Your task to perform on an android device: Clear all items from cart on ebay.com. Add alienware area 51 to the cart on ebay.com, then select checkout. Image 0: 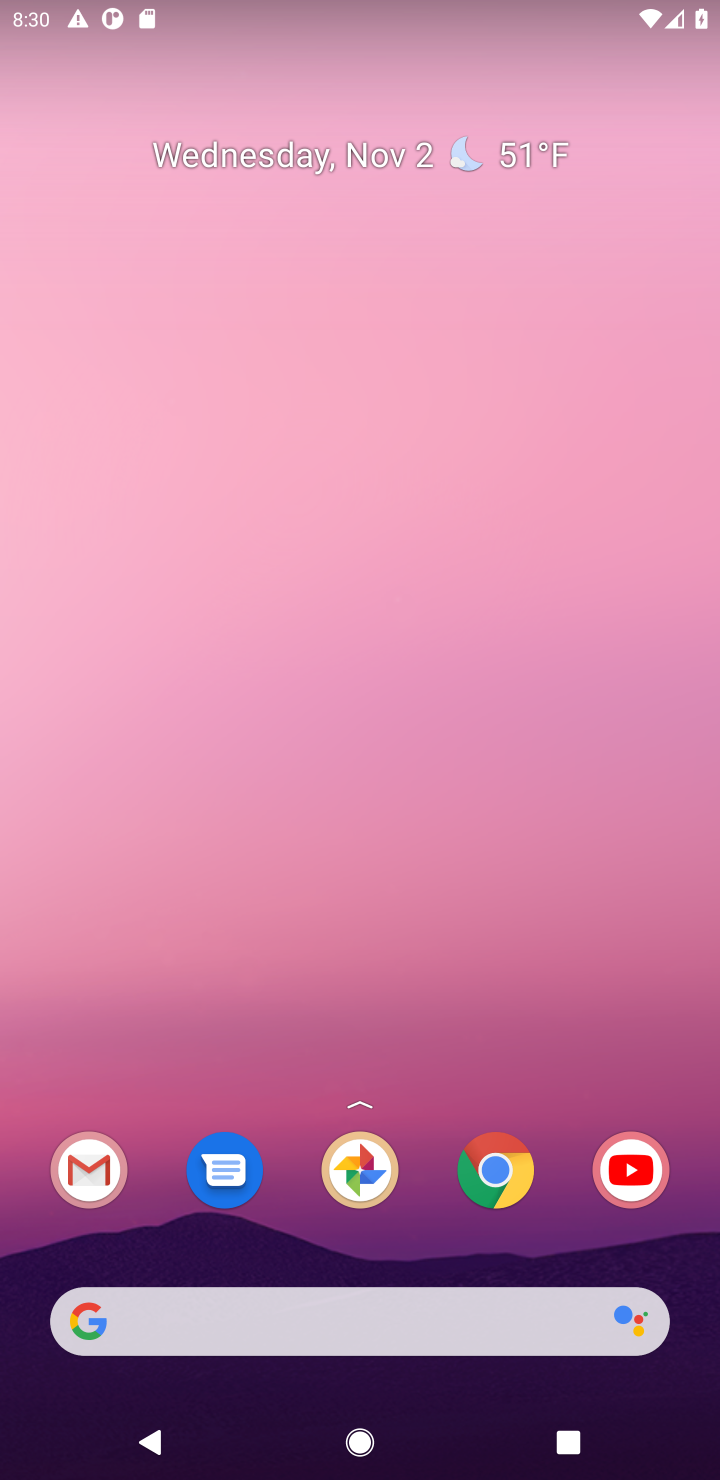
Step 0: click (524, 1167)
Your task to perform on an android device: Clear all items from cart on ebay.com. Add alienware area 51 to the cart on ebay.com, then select checkout. Image 1: 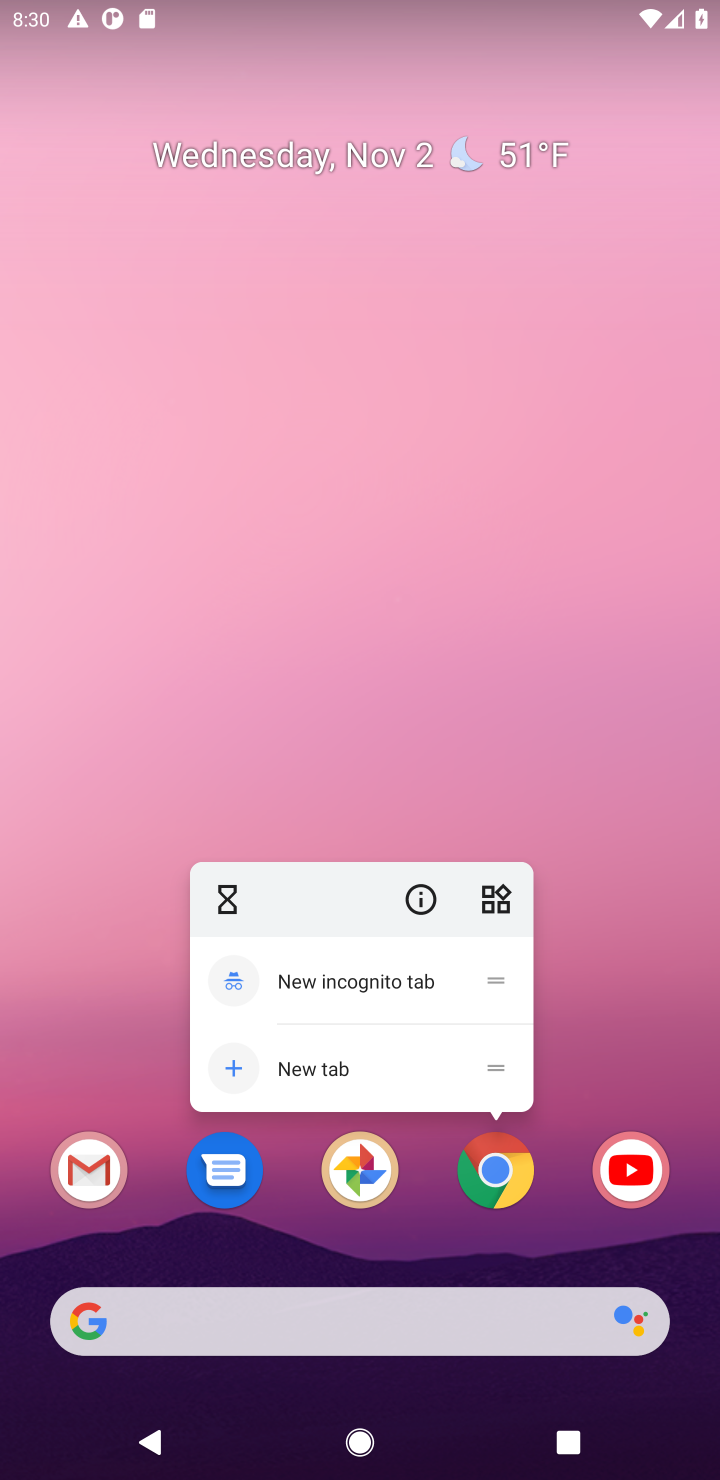
Step 1: click (509, 1185)
Your task to perform on an android device: Clear all items from cart on ebay.com. Add alienware area 51 to the cart on ebay.com, then select checkout. Image 2: 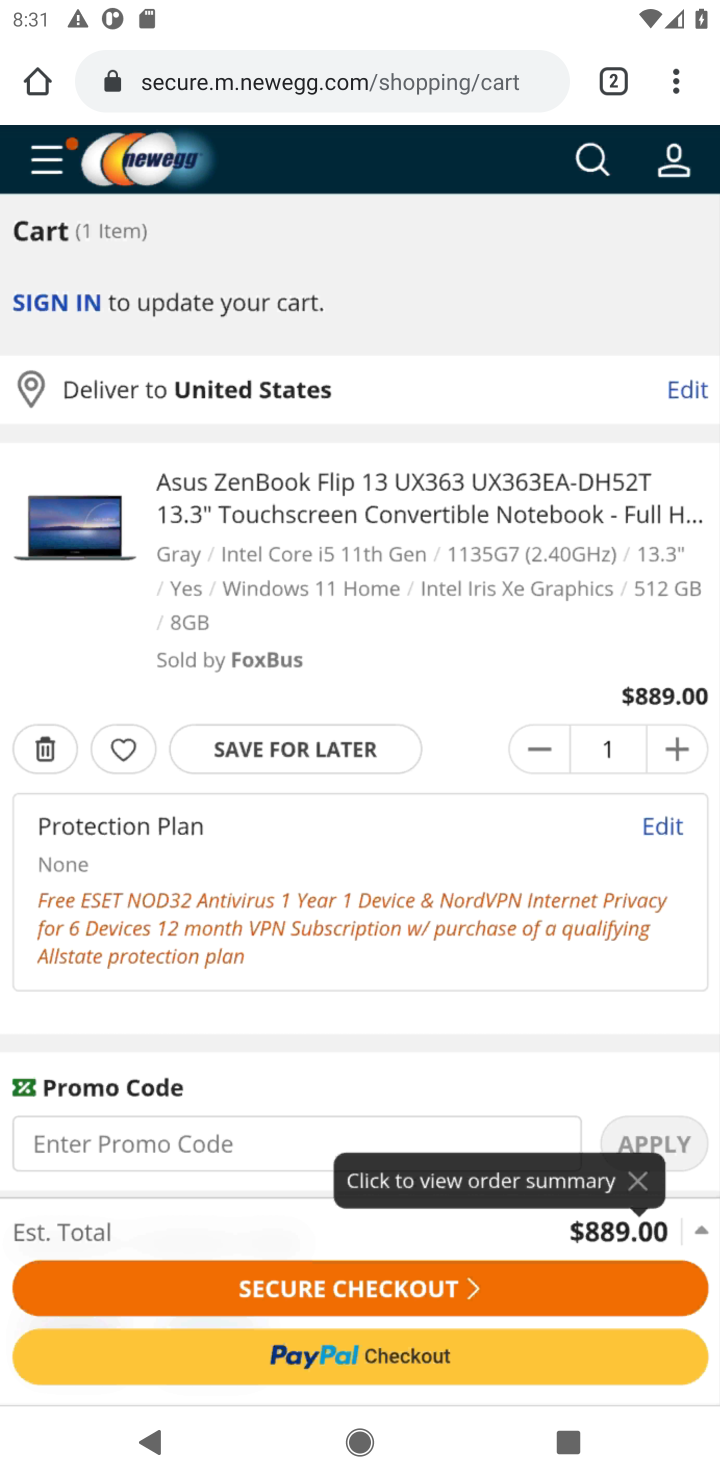
Step 2: click (357, 89)
Your task to perform on an android device: Clear all items from cart on ebay.com. Add alienware area 51 to the cart on ebay.com, then select checkout. Image 3: 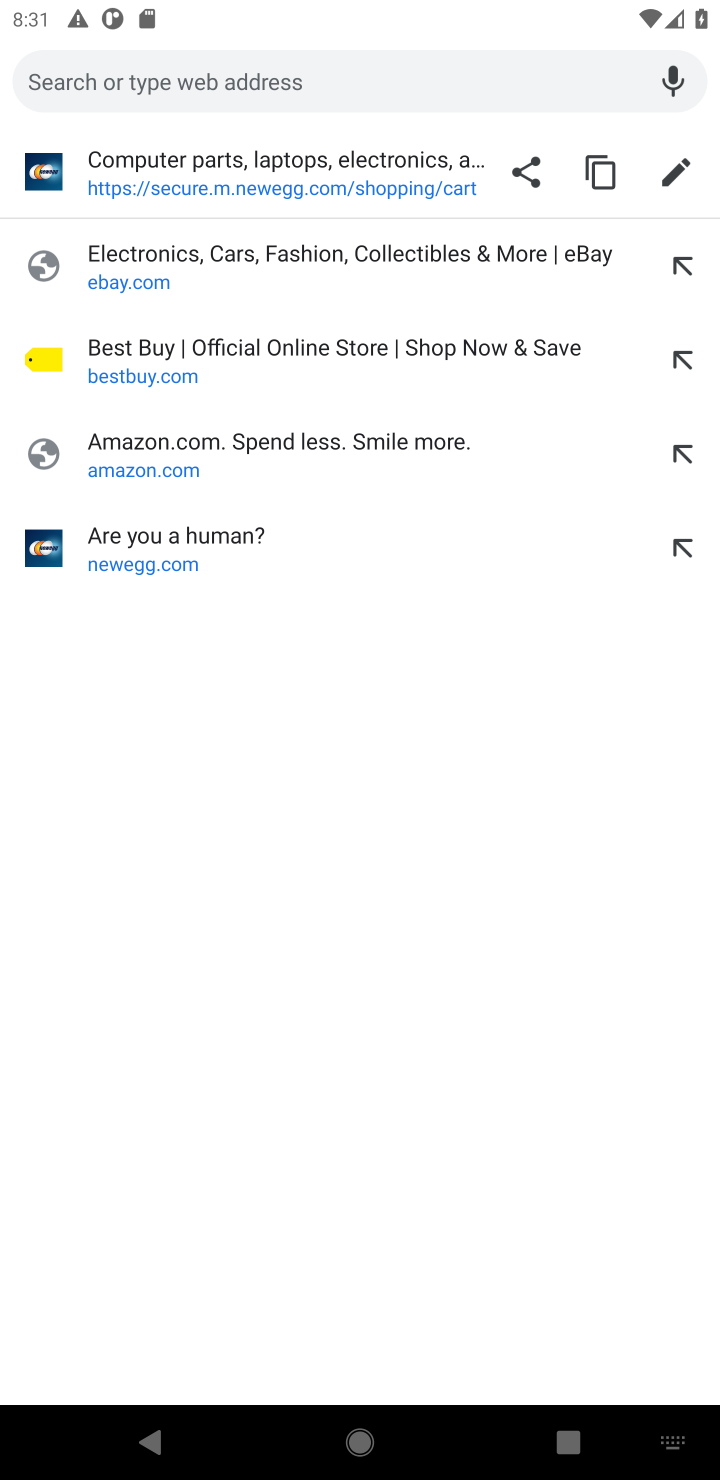
Step 3: type "ebay.com"
Your task to perform on an android device: Clear all items from cart on ebay.com. Add alienware area 51 to the cart on ebay.com, then select checkout. Image 4: 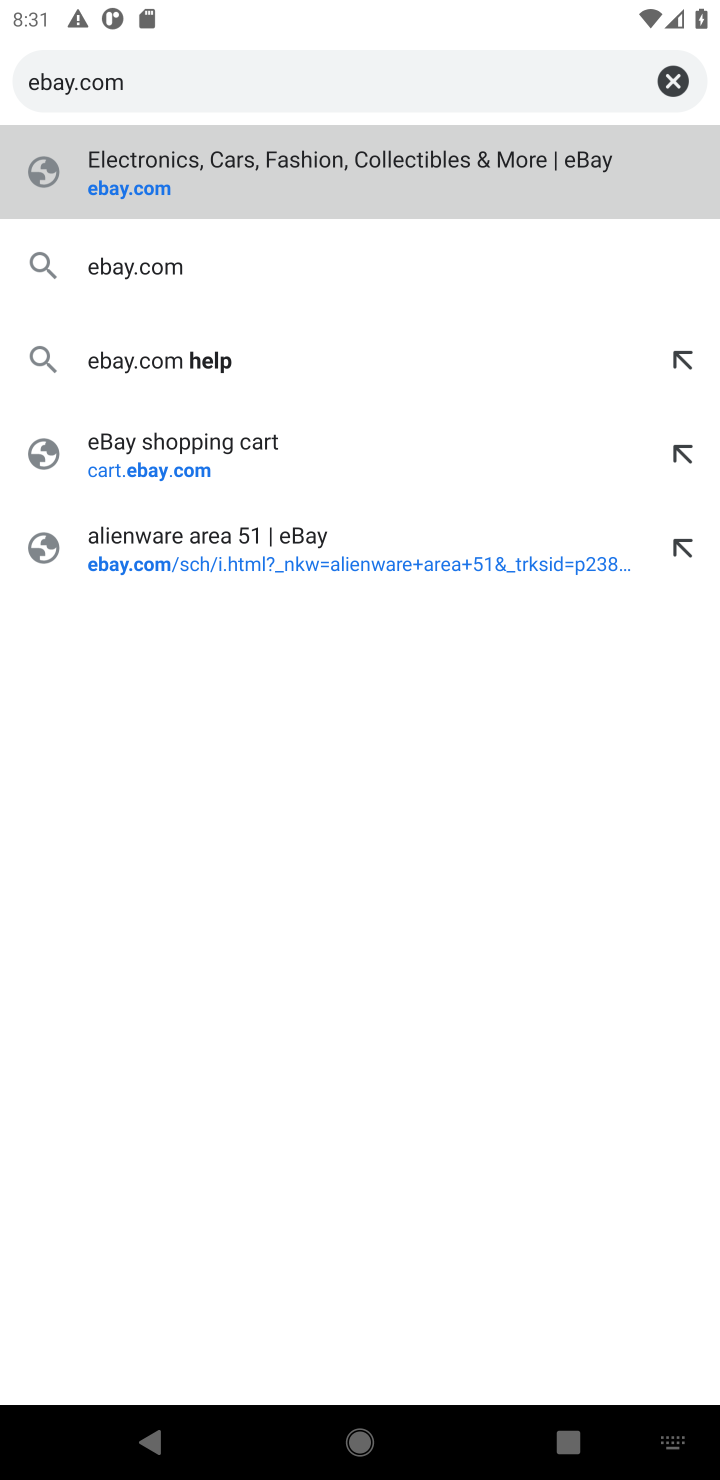
Step 4: type ""
Your task to perform on an android device: Clear all items from cart on ebay.com. Add alienware area 51 to the cart on ebay.com, then select checkout. Image 5: 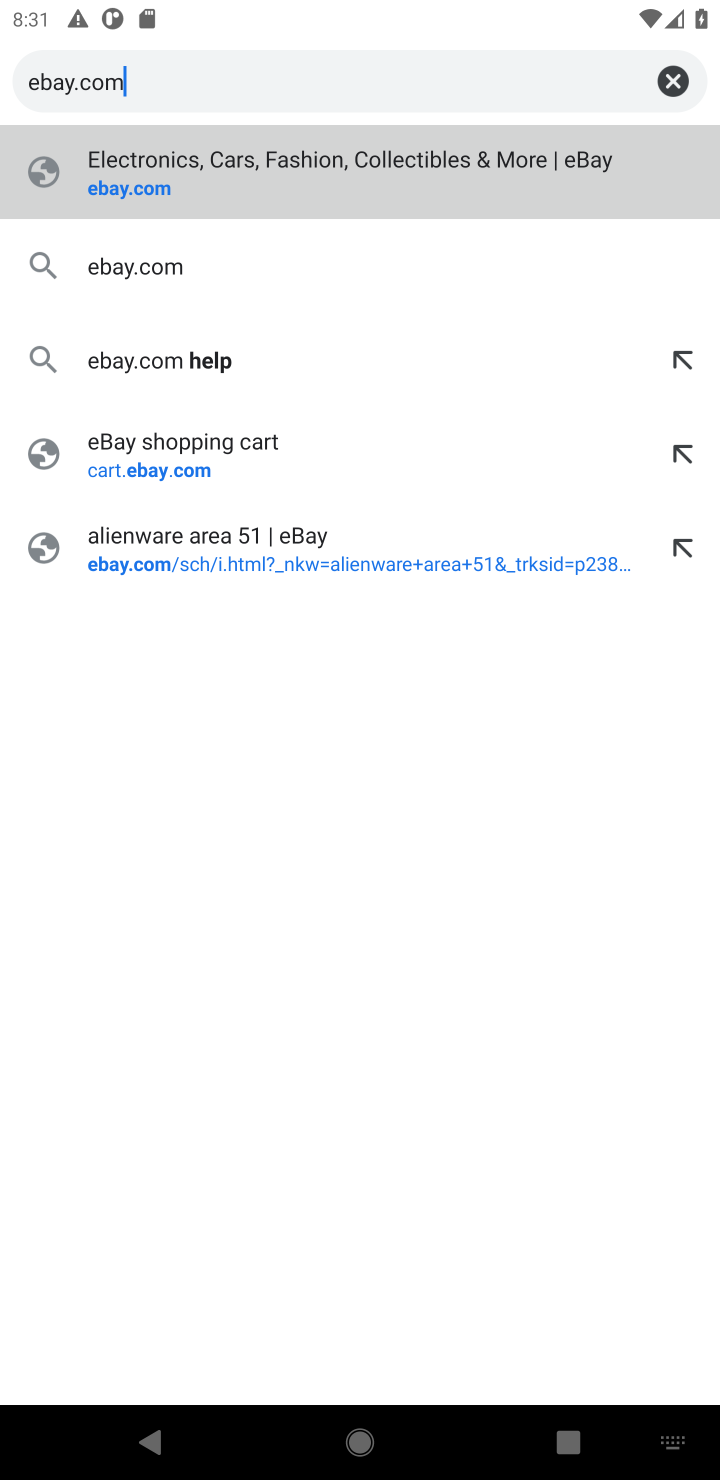
Step 5: press enter
Your task to perform on an android device: Clear all items from cart on ebay.com. Add alienware area 51 to the cart on ebay.com, then select checkout. Image 6: 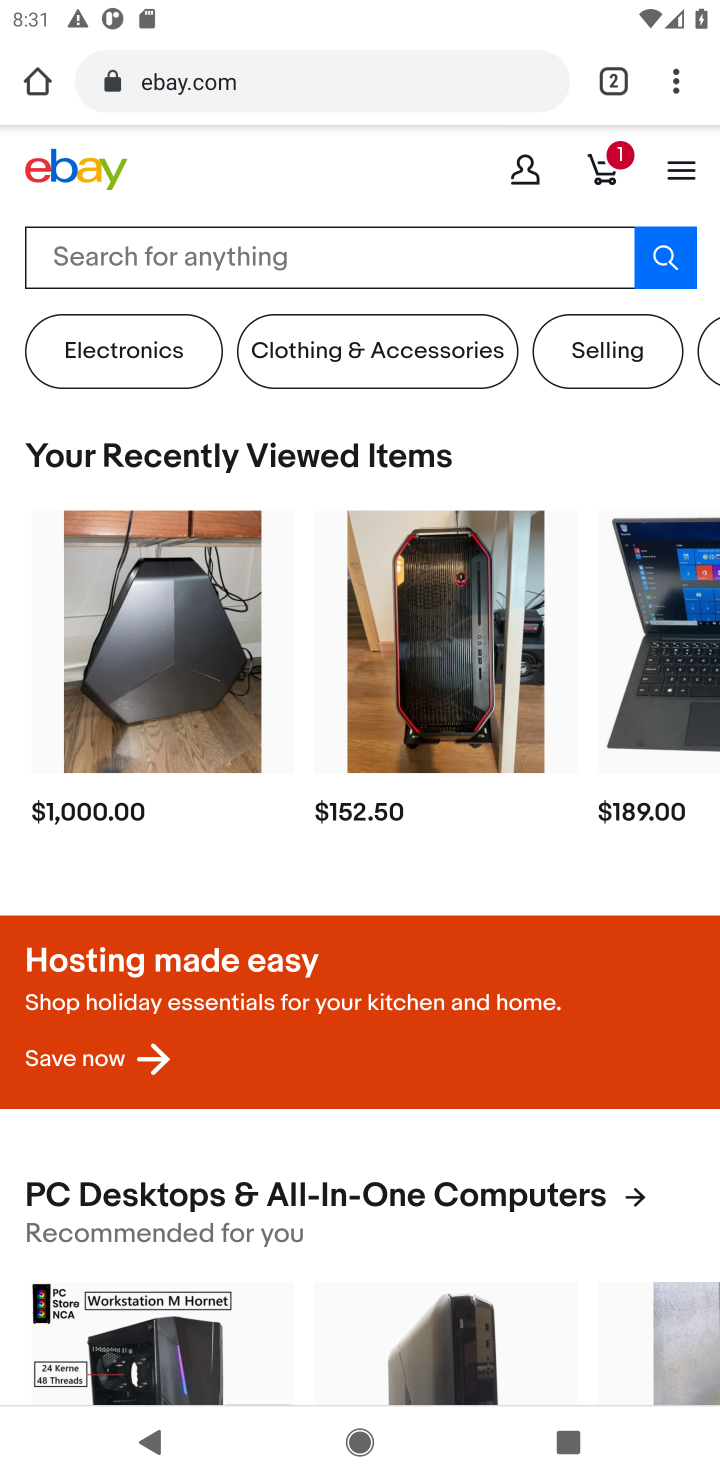
Step 6: click (605, 172)
Your task to perform on an android device: Clear all items from cart on ebay.com. Add alienware area 51 to the cart on ebay.com, then select checkout. Image 7: 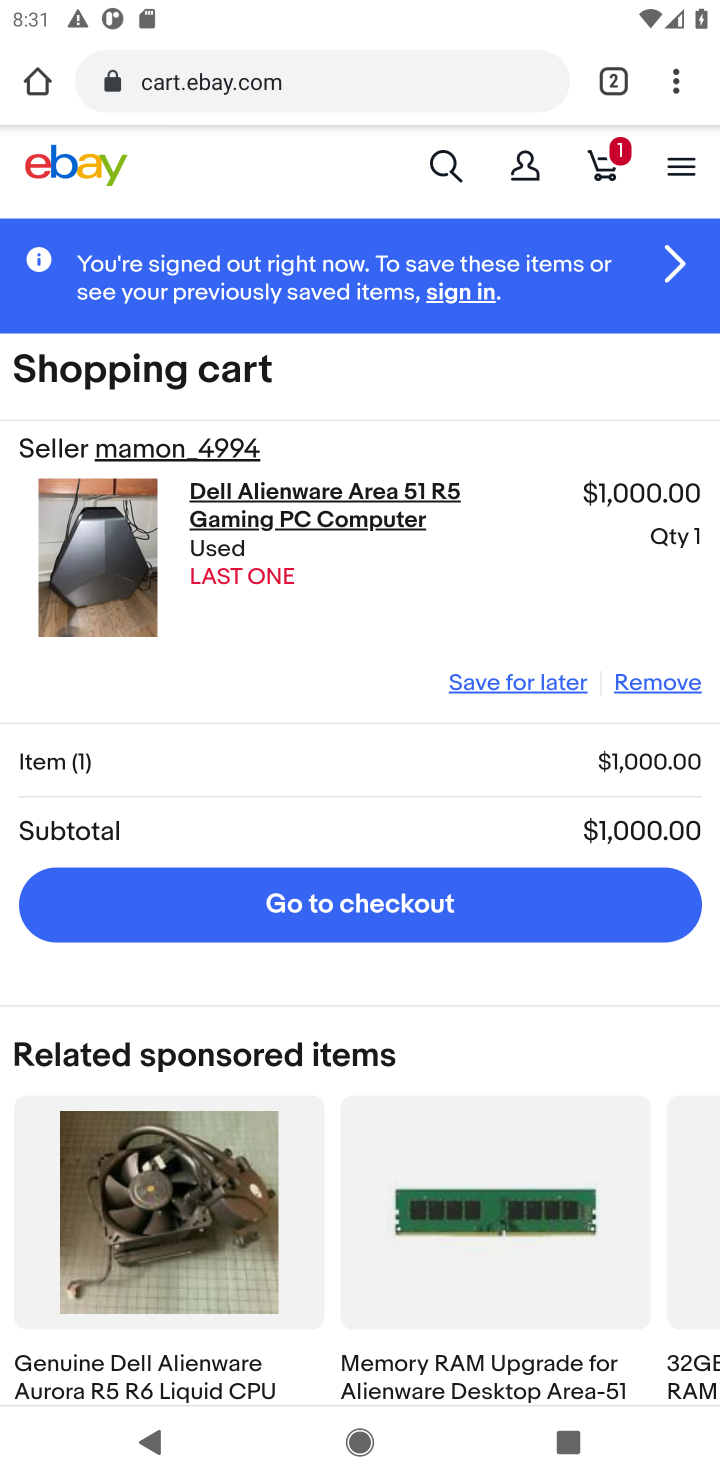
Step 7: click (640, 676)
Your task to perform on an android device: Clear all items from cart on ebay.com. Add alienware area 51 to the cart on ebay.com, then select checkout. Image 8: 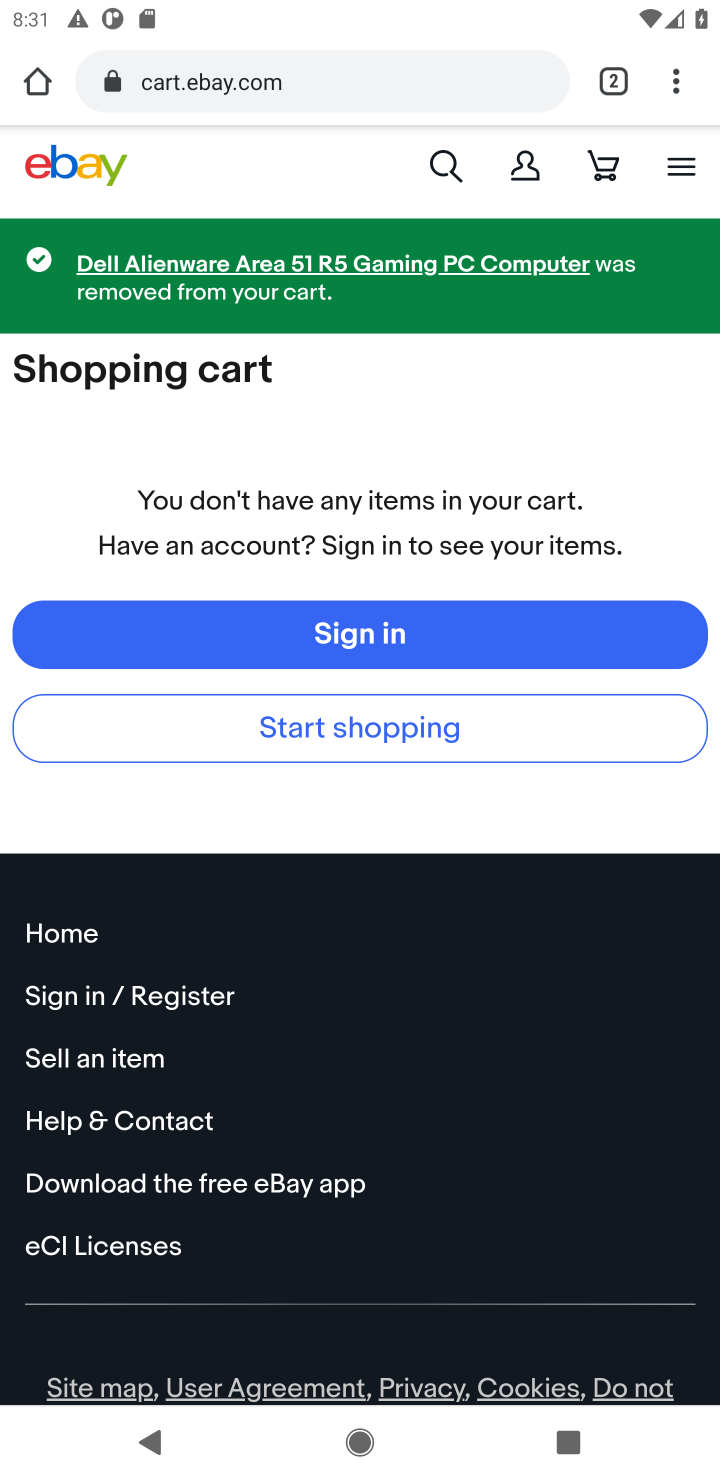
Step 8: click (519, 749)
Your task to perform on an android device: Clear all items from cart on ebay.com. Add alienware area 51 to the cart on ebay.com, then select checkout. Image 9: 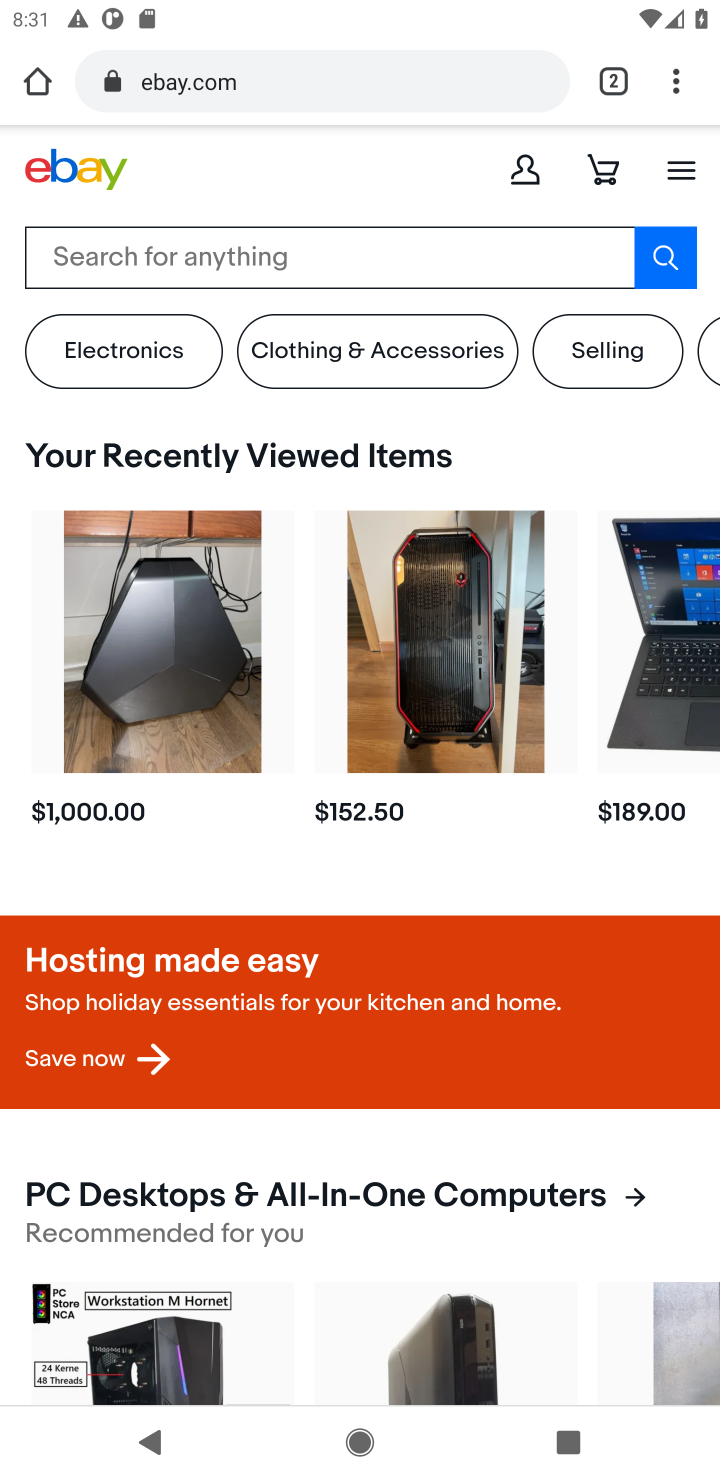
Step 9: click (325, 270)
Your task to perform on an android device: Clear all items from cart on ebay.com. Add alienware area 51 to the cart on ebay.com, then select checkout. Image 10: 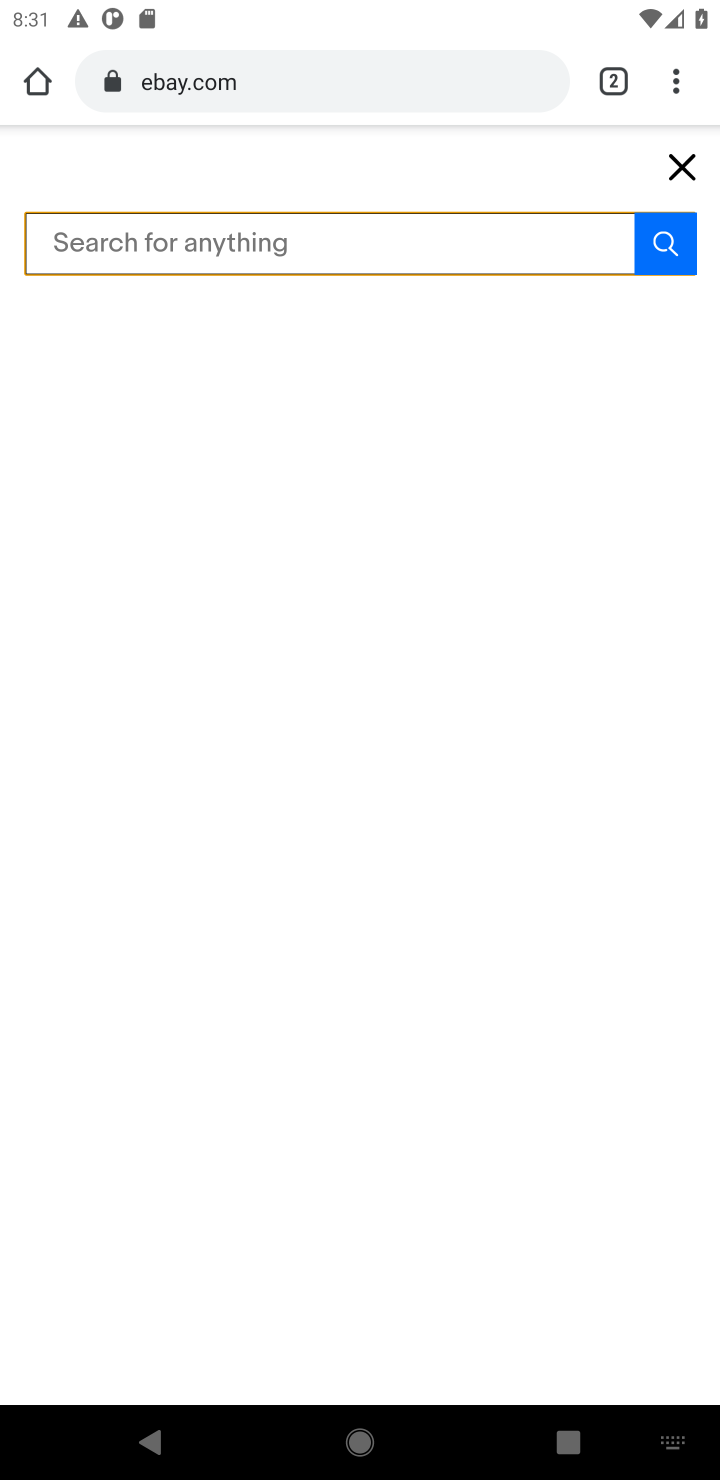
Step 10: type "alienware area 51"
Your task to perform on an android device: Clear all items from cart on ebay.com. Add alienware area 51 to the cart on ebay.com, then select checkout. Image 11: 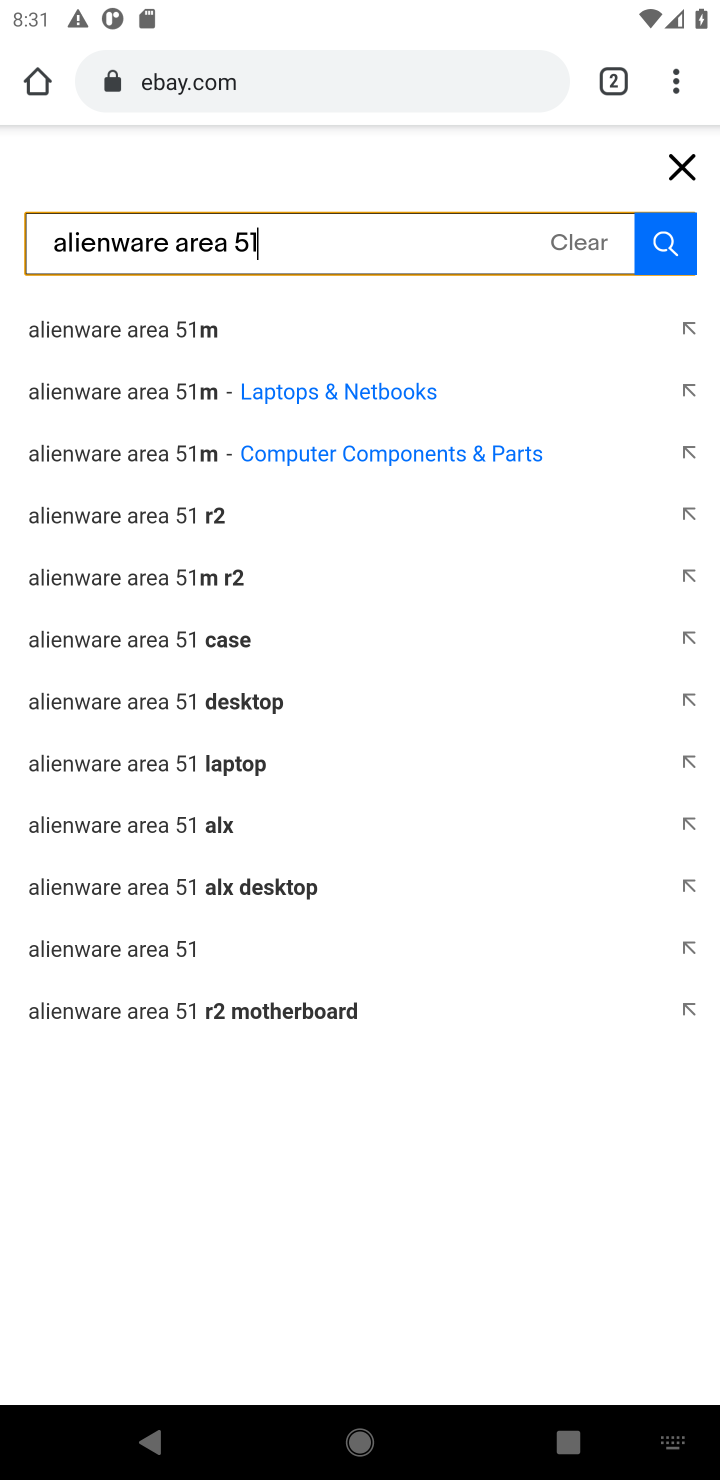
Step 11: type ""
Your task to perform on an android device: Clear all items from cart on ebay.com. Add alienware area 51 to the cart on ebay.com, then select checkout. Image 12: 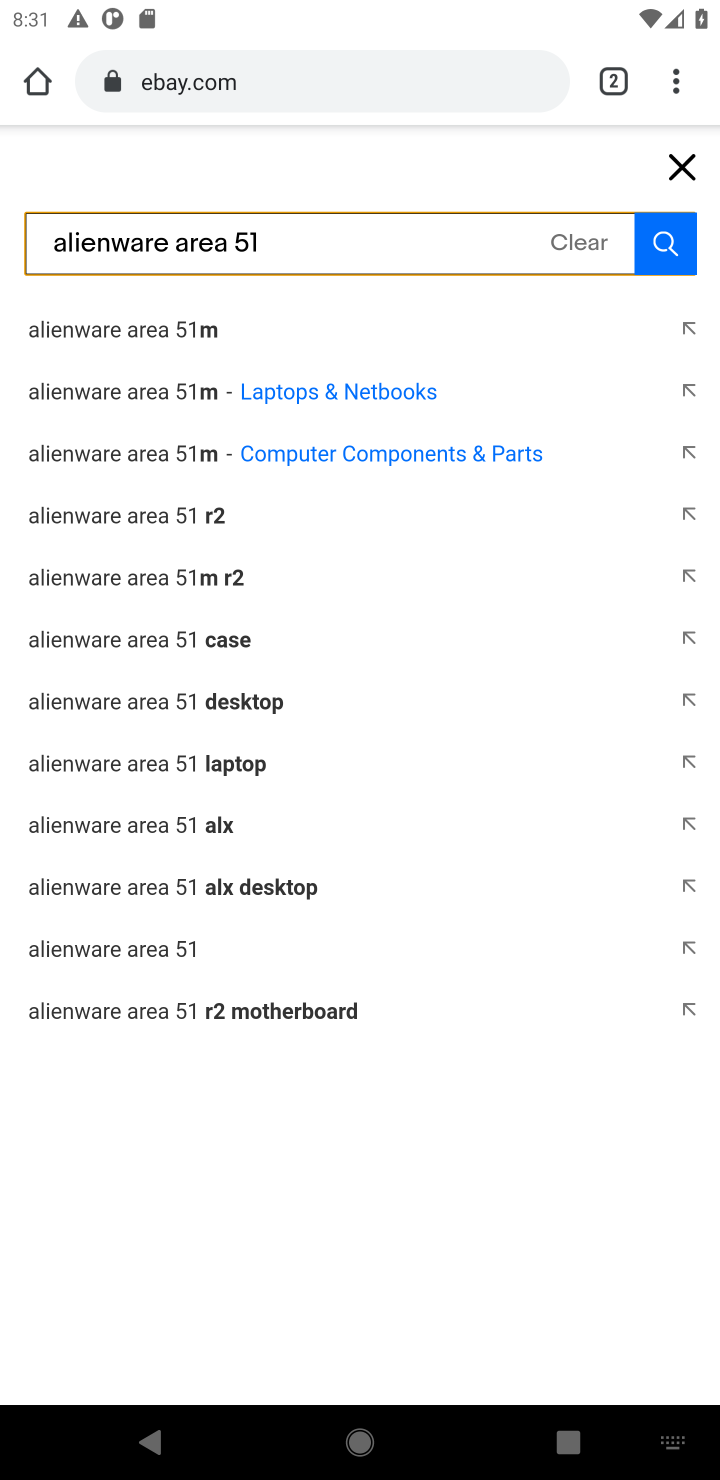
Step 12: click (644, 256)
Your task to perform on an android device: Clear all items from cart on ebay.com. Add alienware area 51 to the cart on ebay.com, then select checkout. Image 13: 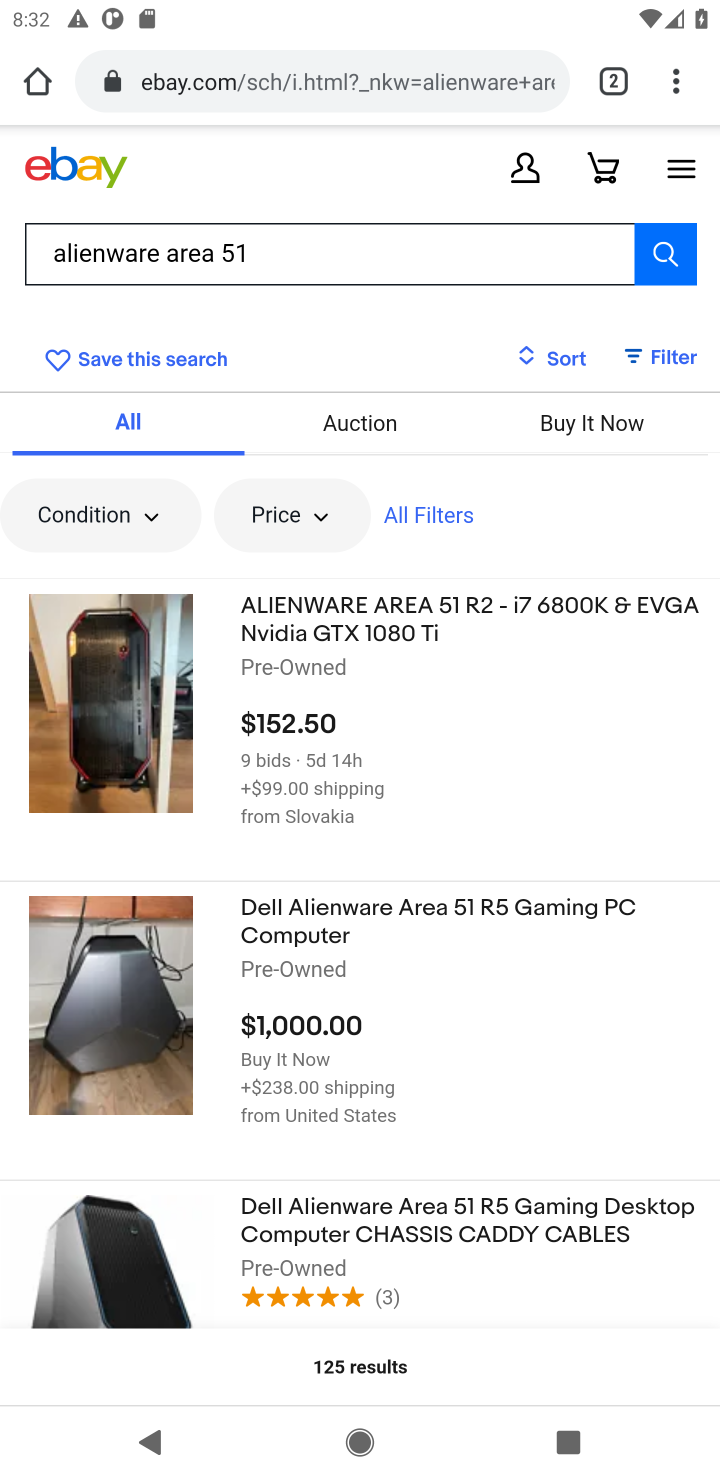
Step 13: click (346, 616)
Your task to perform on an android device: Clear all items from cart on ebay.com. Add alienware area 51 to the cart on ebay.com, then select checkout. Image 14: 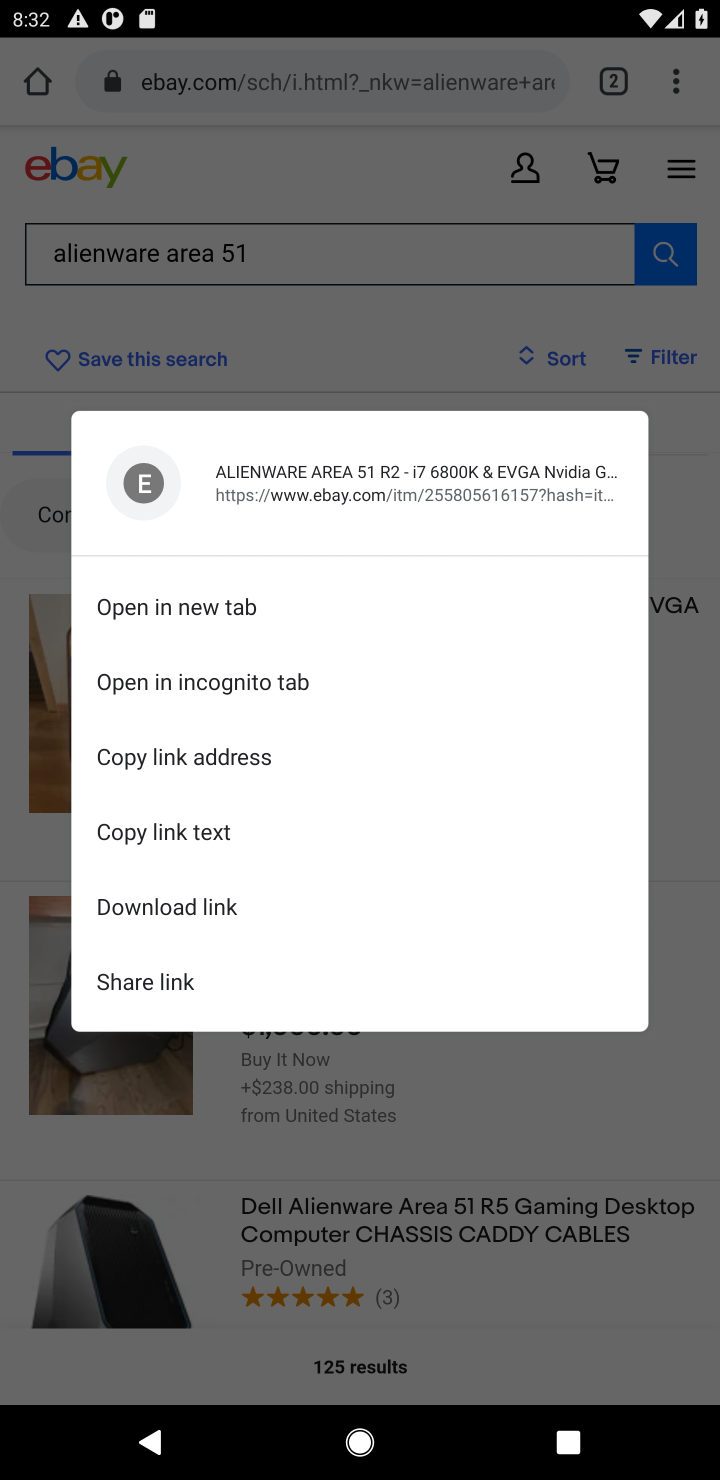
Step 14: click (441, 1079)
Your task to perform on an android device: Clear all items from cart on ebay.com. Add alienware area 51 to the cart on ebay.com, then select checkout. Image 15: 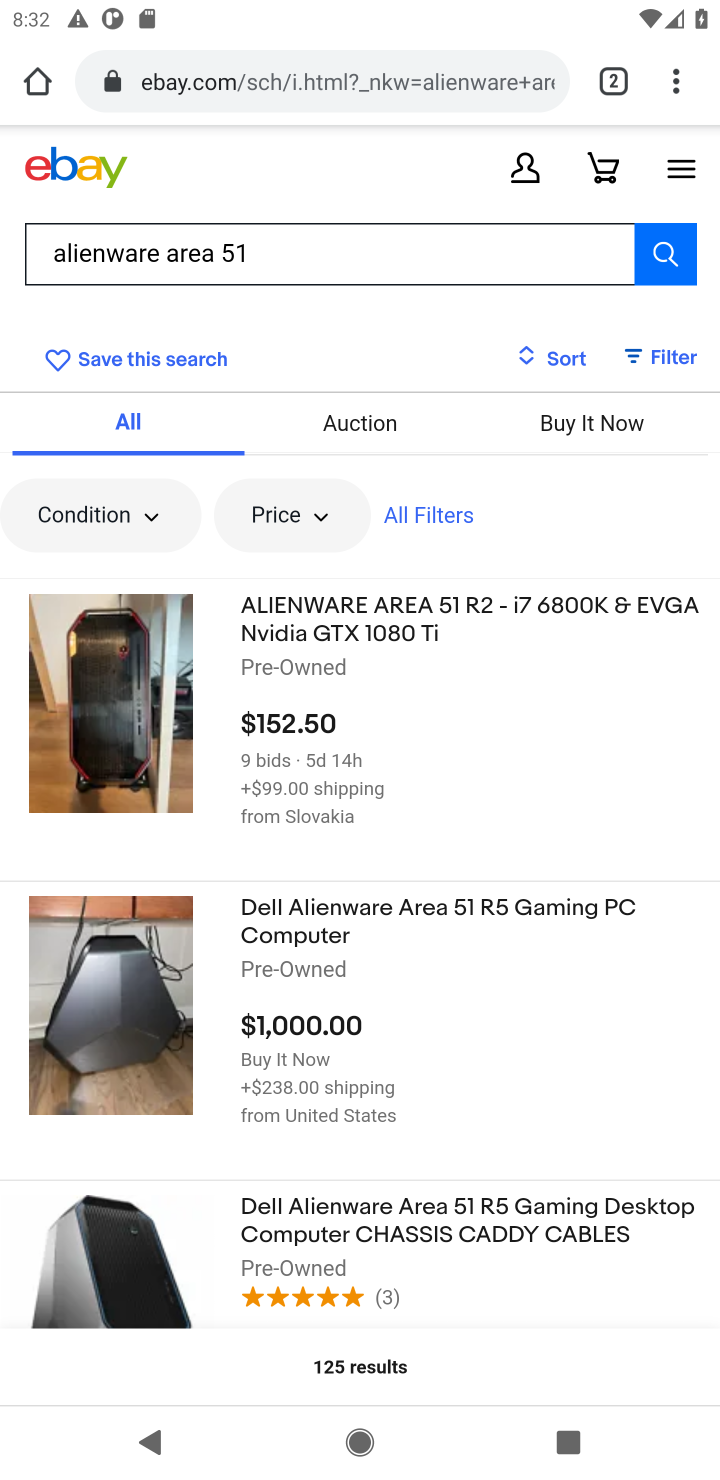
Step 15: click (346, 641)
Your task to perform on an android device: Clear all items from cart on ebay.com. Add alienware area 51 to the cart on ebay.com, then select checkout. Image 16: 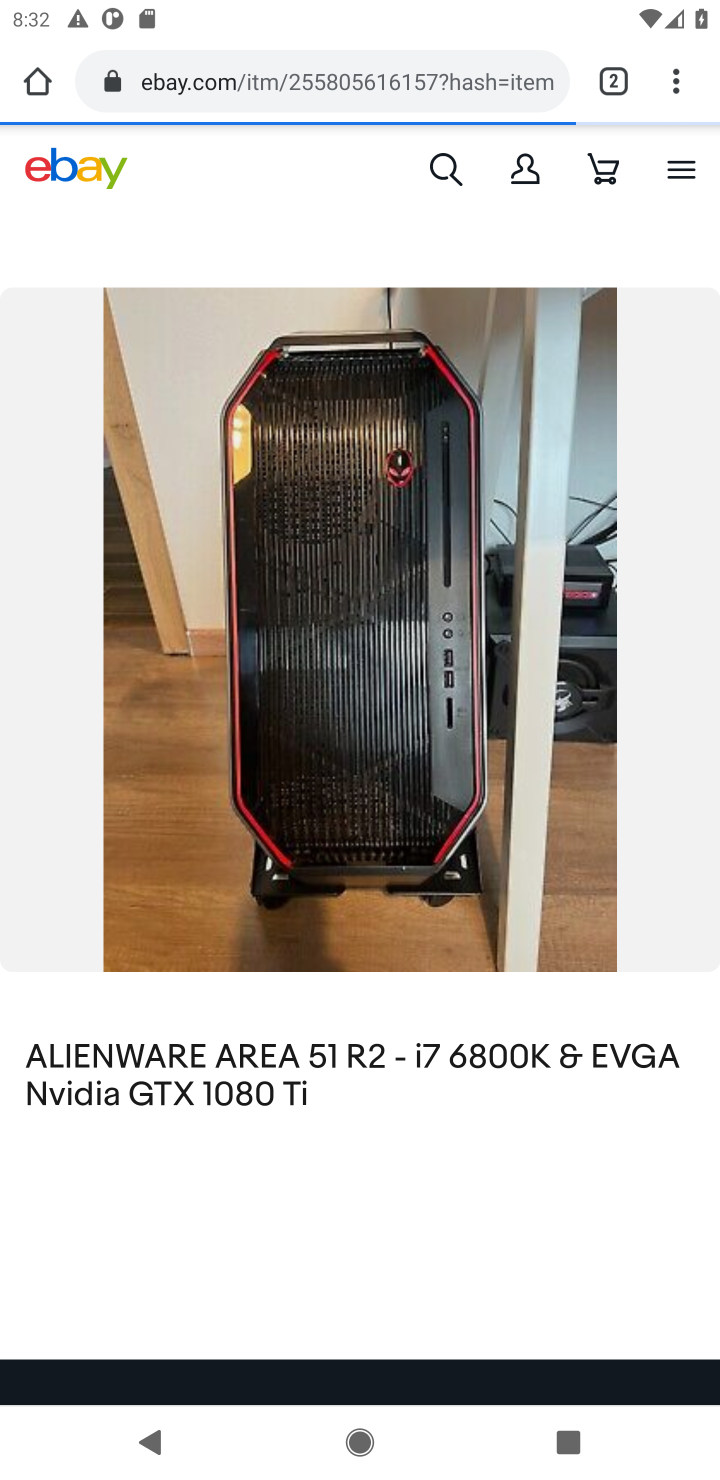
Step 16: drag from (474, 1083) to (461, 762)
Your task to perform on an android device: Clear all items from cart on ebay.com. Add alienware area 51 to the cart on ebay.com, then select checkout. Image 17: 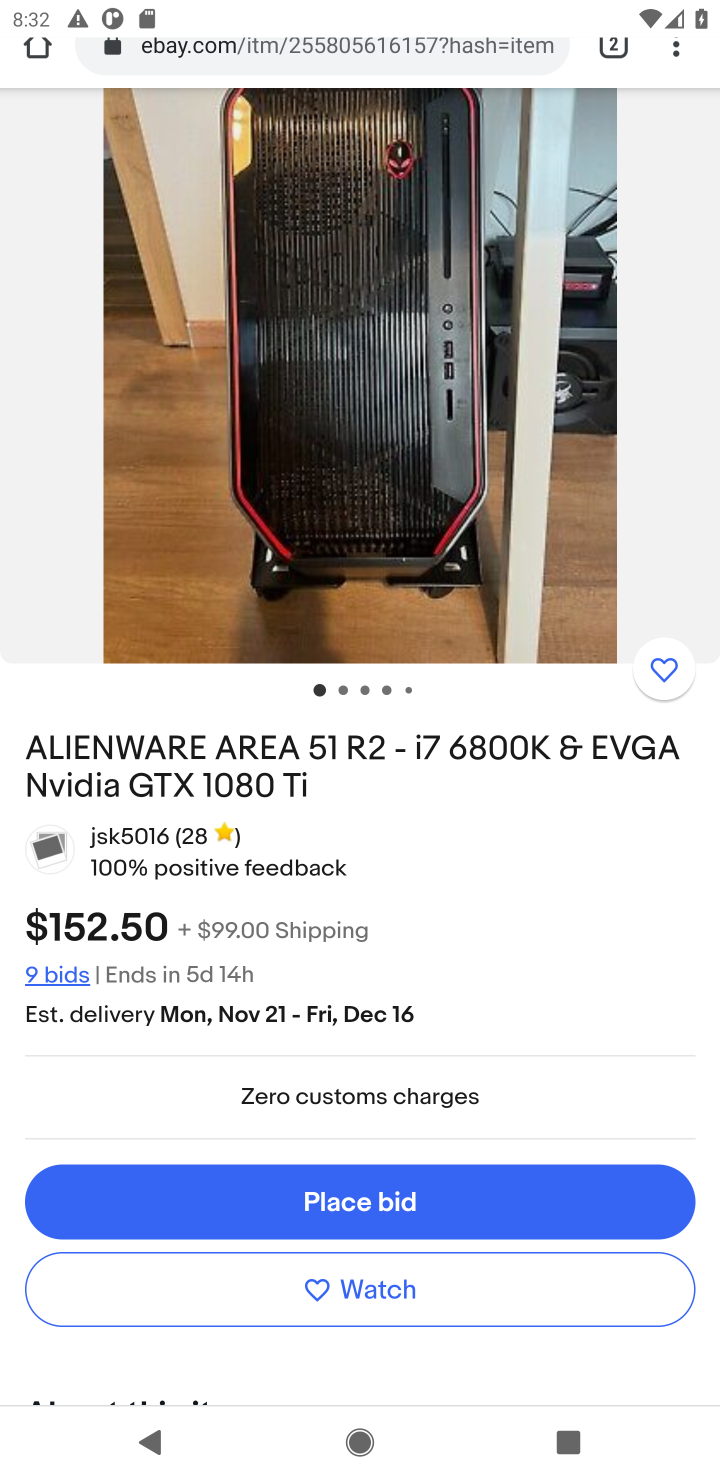
Step 17: press back button
Your task to perform on an android device: Clear all items from cart on ebay.com. Add alienware area 51 to the cart on ebay.com, then select checkout. Image 18: 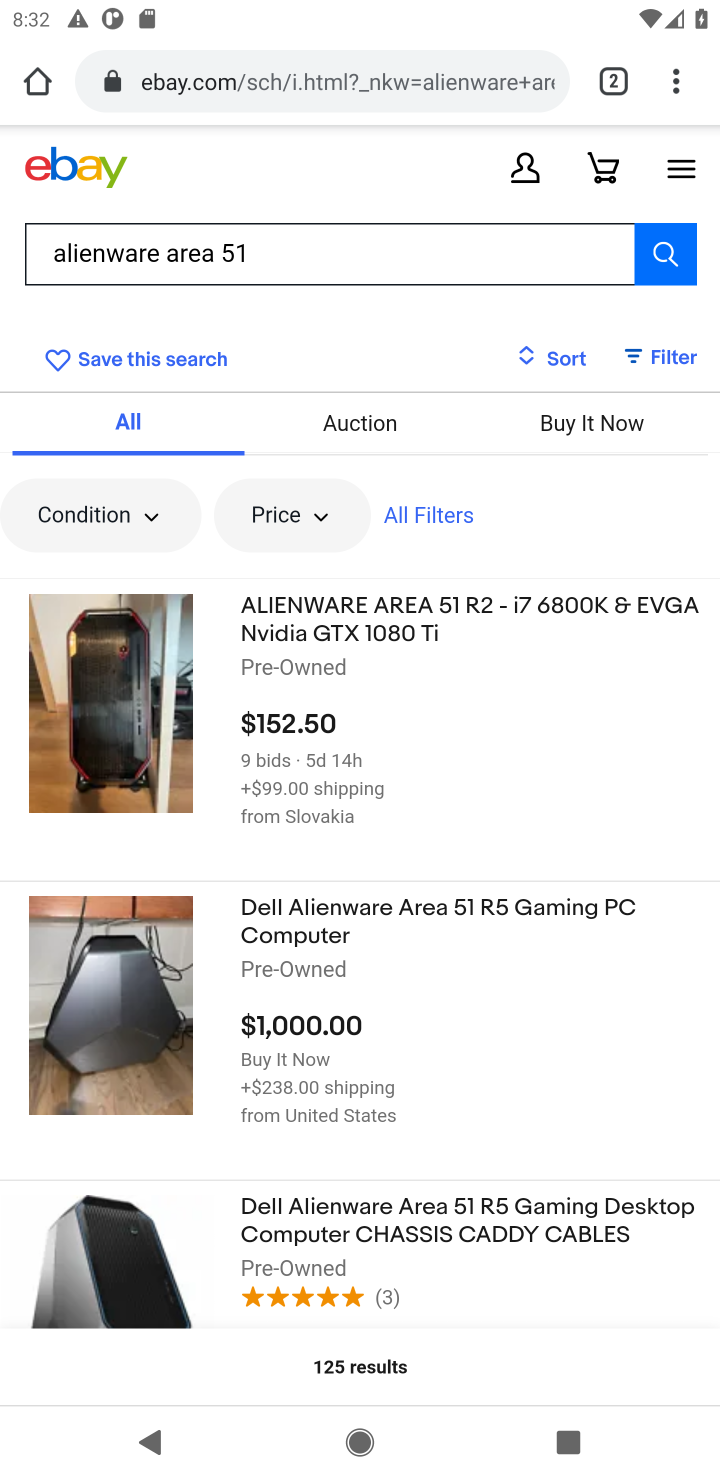
Step 18: click (333, 942)
Your task to perform on an android device: Clear all items from cart on ebay.com. Add alienware area 51 to the cart on ebay.com, then select checkout. Image 19: 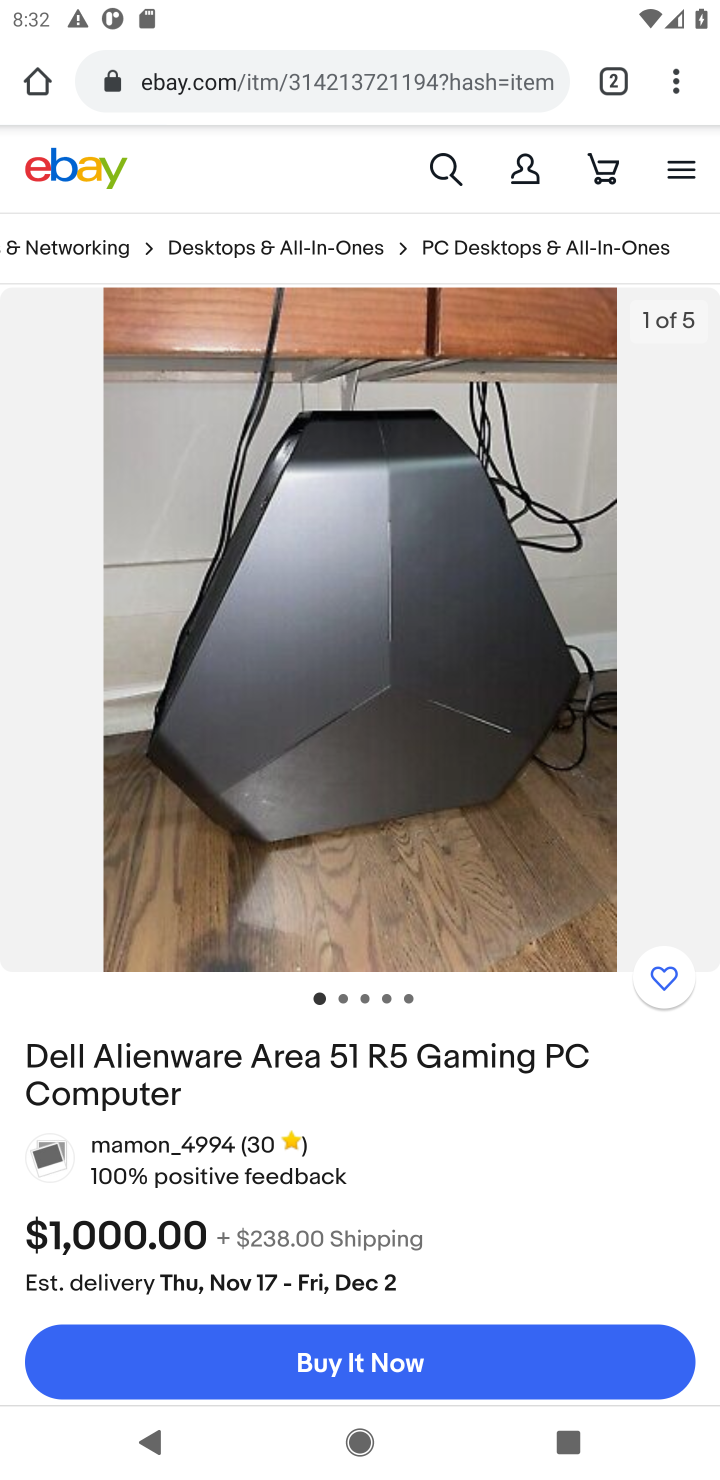
Step 19: drag from (318, 1065) to (274, 571)
Your task to perform on an android device: Clear all items from cart on ebay.com. Add alienware area 51 to the cart on ebay.com, then select checkout. Image 20: 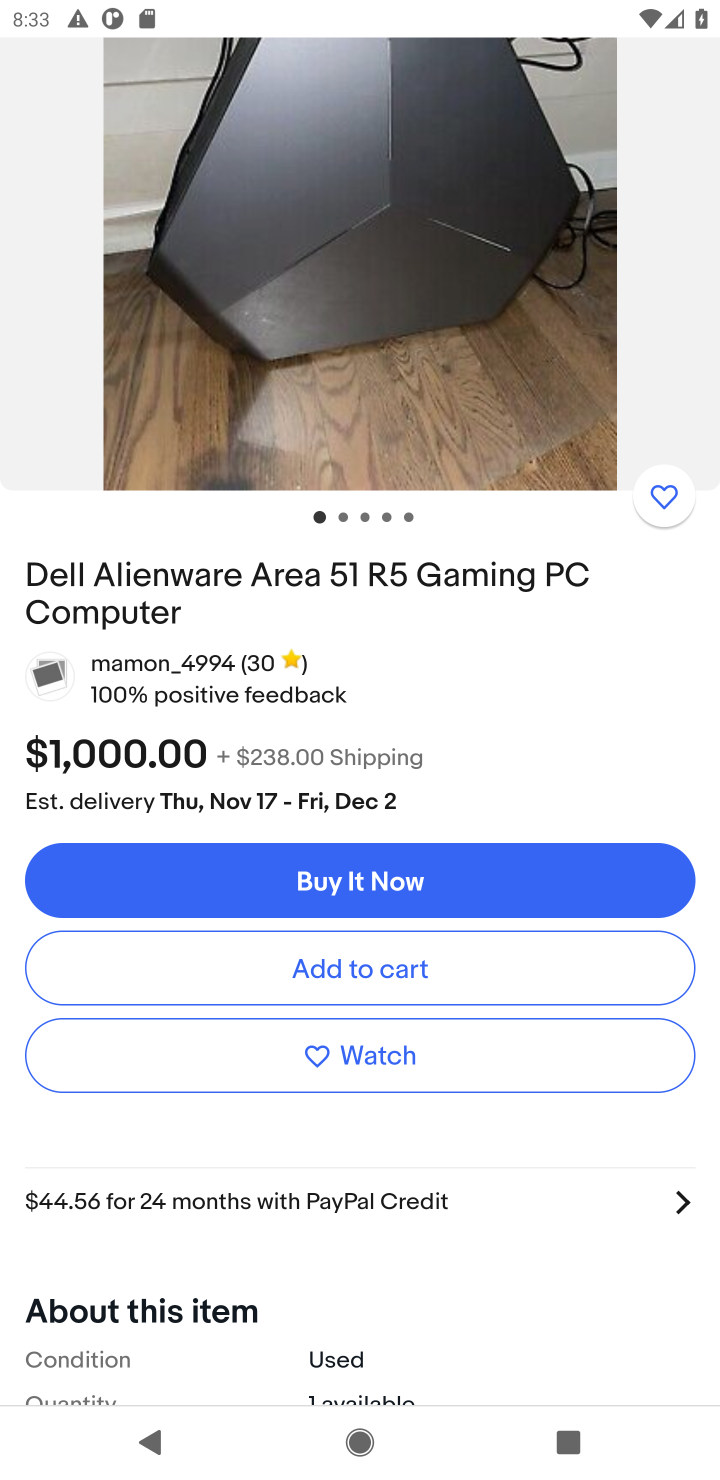
Step 20: click (395, 974)
Your task to perform on an android device: Clear all items from cart on ebay.com. Add alienware area 51 to the cart on ebay.com, then select checkout. Image 21: 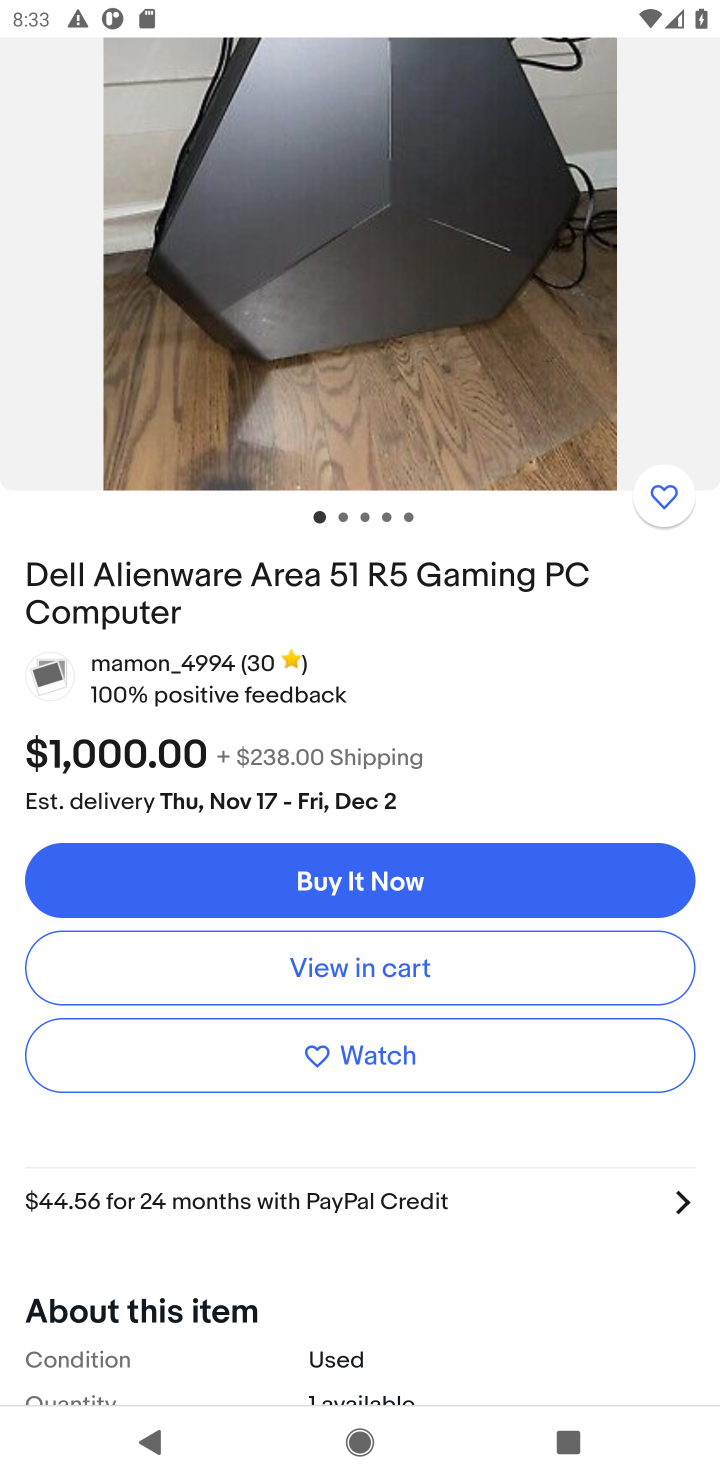
Step 21: click (384, 970)
Your task to perform on an android device: Clear all items from cart on ebay.com. Add alienware area 51 to the cart on ebay.com, then select checkout. Image 22: 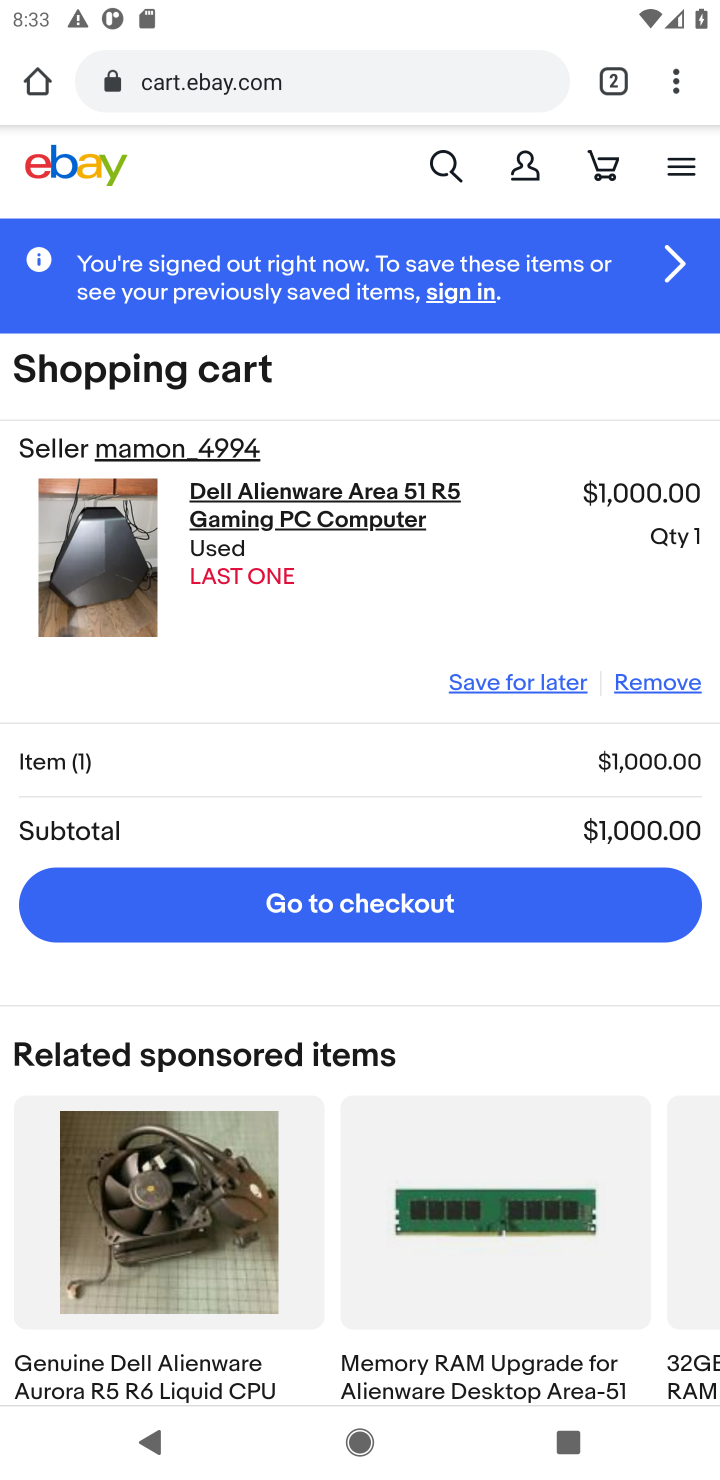
Step 22: click (371, 921)
Your task to perform on an android device: Clear all items from cart on ebay.com. Add alienware area 51 to the cart on ebay.com, then select checkout. Image 23: 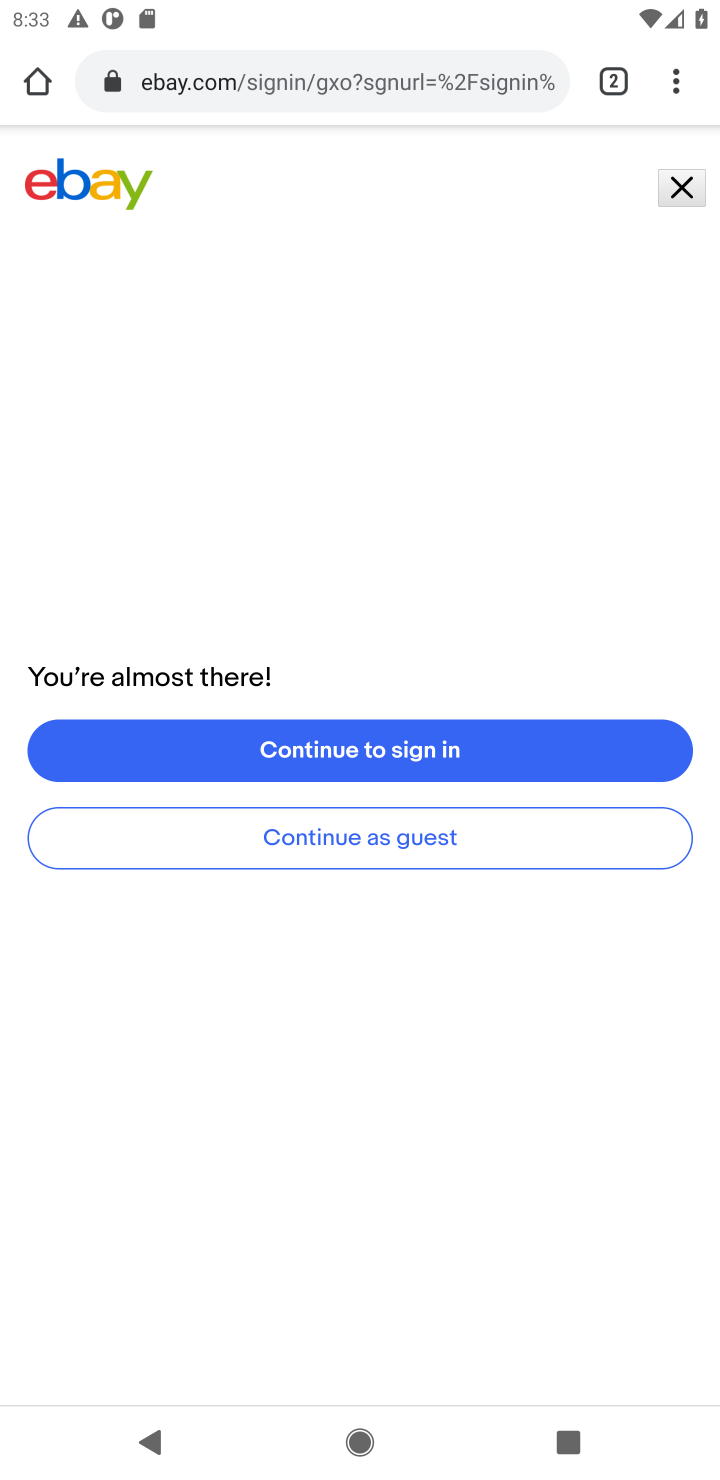
Step 23: task complete